Your task to perform on an android device: Search for pizza restaurants on Maps Image 0: 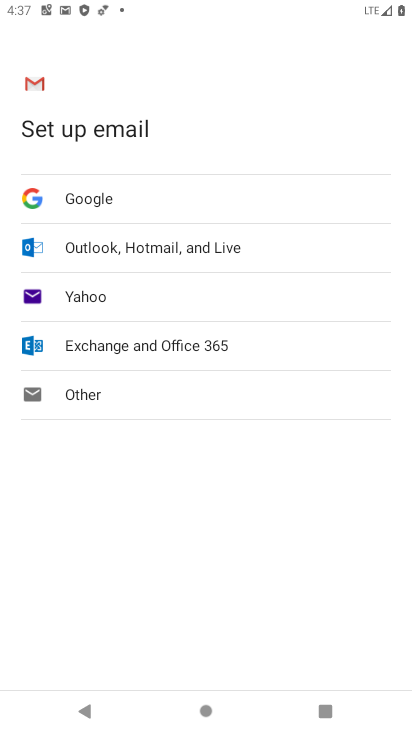
Step 0: press home button
Your task to perform on an android device: Search for pizza restaurants on Maps Image 1: 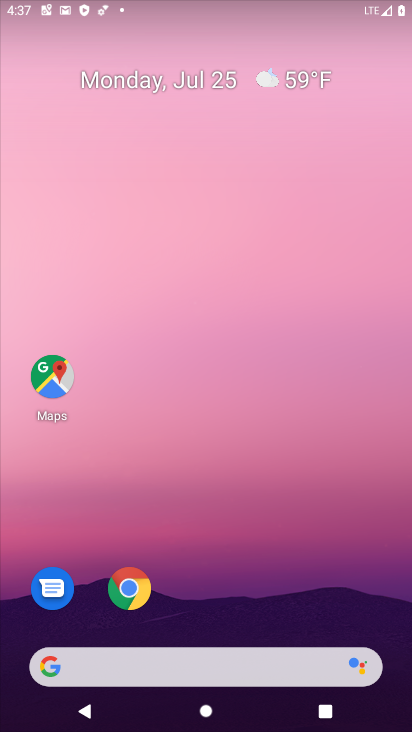
Step 1: drag from (319, 585) to (351, 41)
Your task to perform on an android device: Search for pizza restaurants on Maps Image 2: 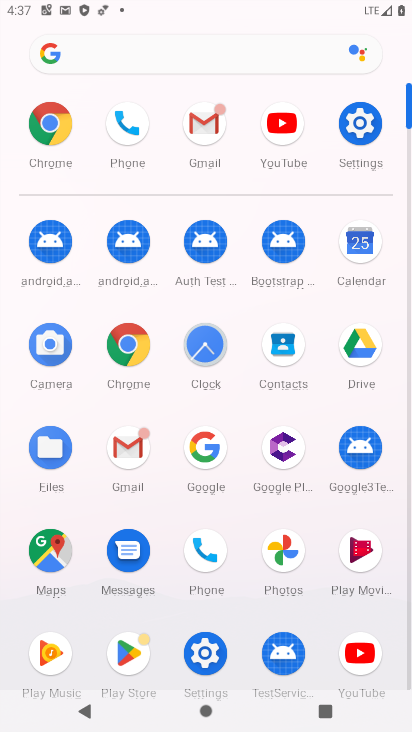
Step 2: click (51, 549)
Your task to perform on an android device: Search for pizza restaurants on Maps Image 3: 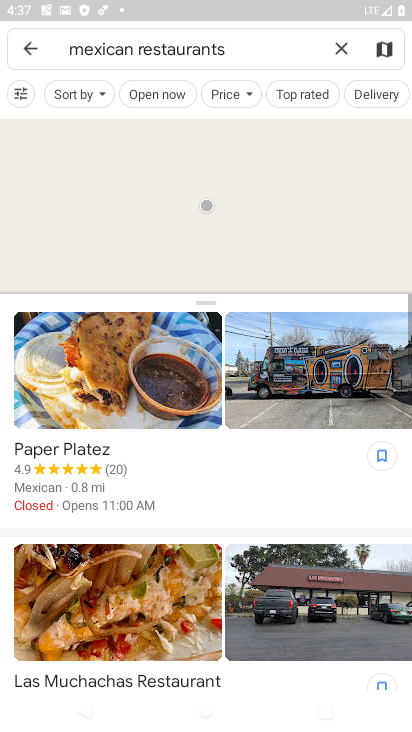
Step 3: click (340, 49)
Your task to perform on an android device: Search for pizza restaurants on Maps Image 4: 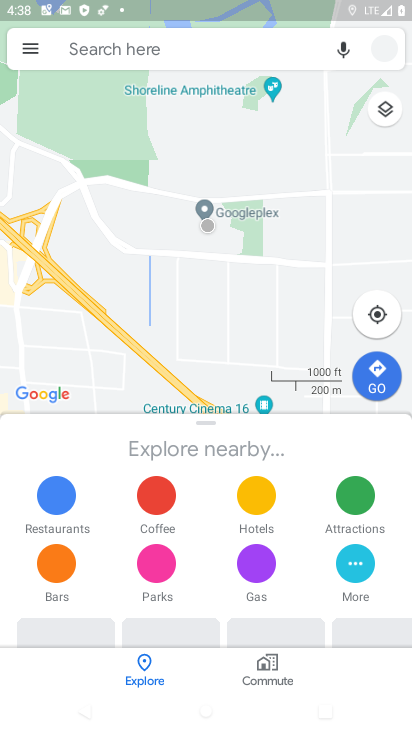
Step 4: click (235, 45)
Your task to perform on an android device: Search for pizza restaurants on Maps Image 5: 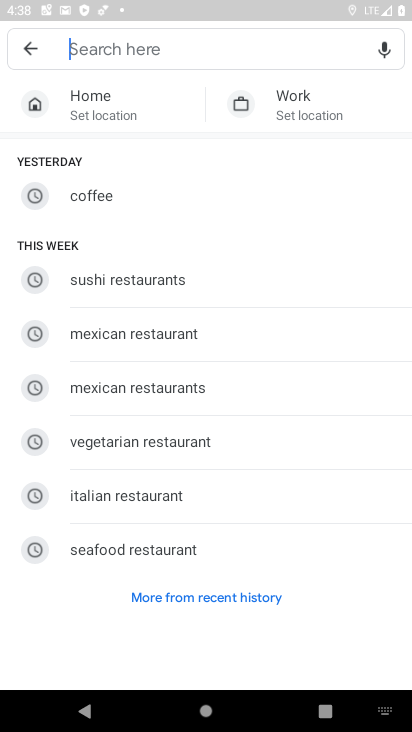
Step 5: type "pizza restaurants "
Your task to perform on an android device: Search for pizza restaurants on Maps Image 6: 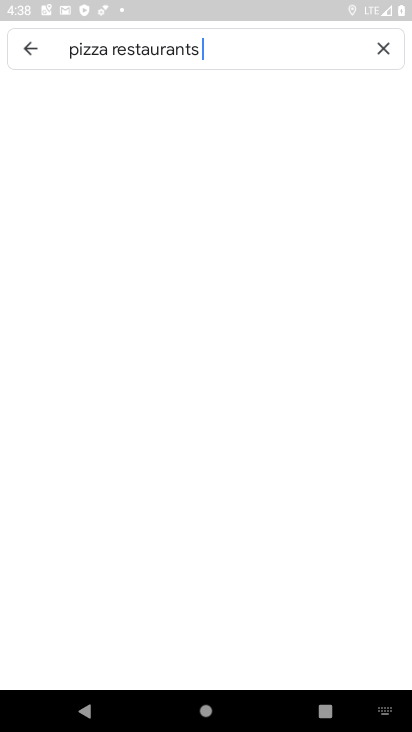
Step 6: type ""
Your task to perform on an android device: Search for pizza restaurants on Maps Image 7: 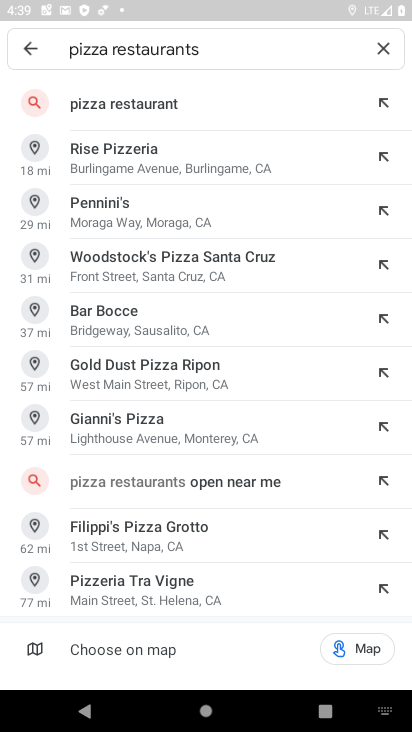
Step 7: click (124, 106)
Your task to perform on an android device: Search for pizza restaurants on Maps Image 8: 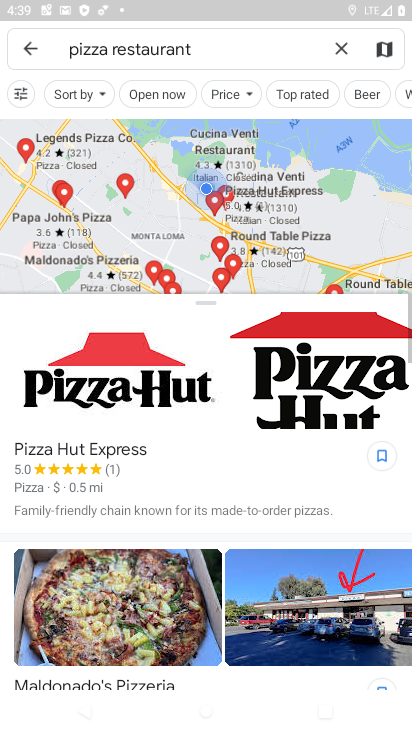
Step 8: task complete